Your task to perform on an android device: delete location history Image 0: 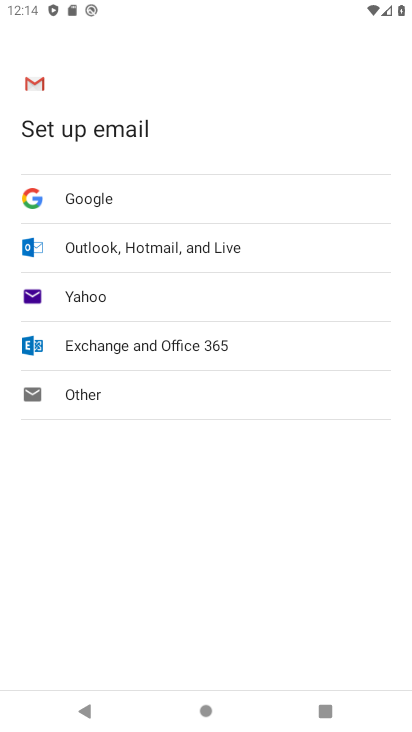
Step 0: press home button
Your task to perform on an android device: delete location history Image 1: 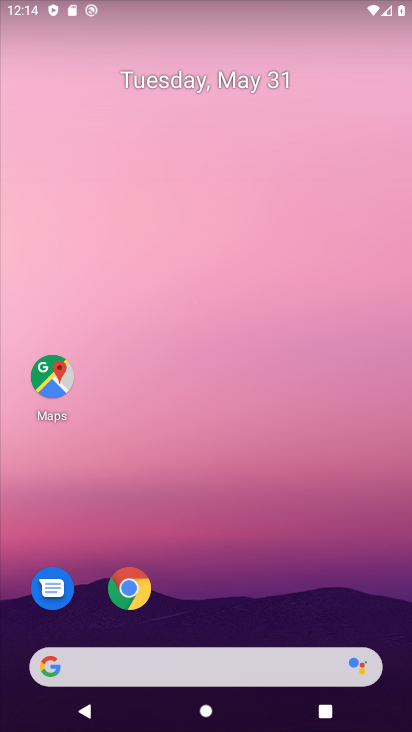
Step 1: drag from (153, 726) to (200, 71)
Your task to perform on an android device: delete location history Image 2: 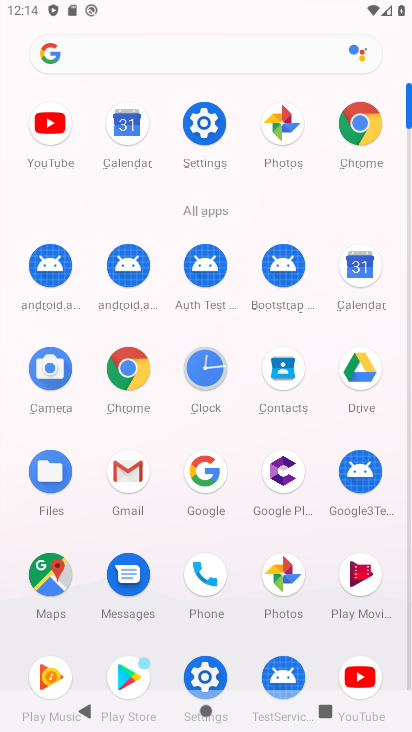
Step 2: click (209, 132)
Your task to perform on an android device: delete location history Image 3: 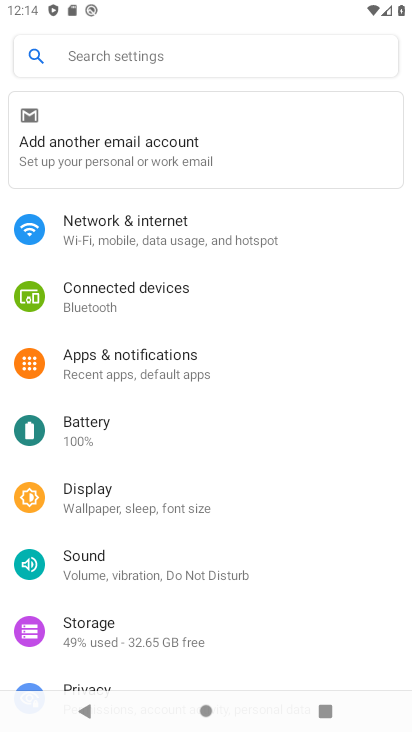
Step 3: drag from (147, 641) to (94, 187)
Your task to perform on an android device: delete location history Image 4: 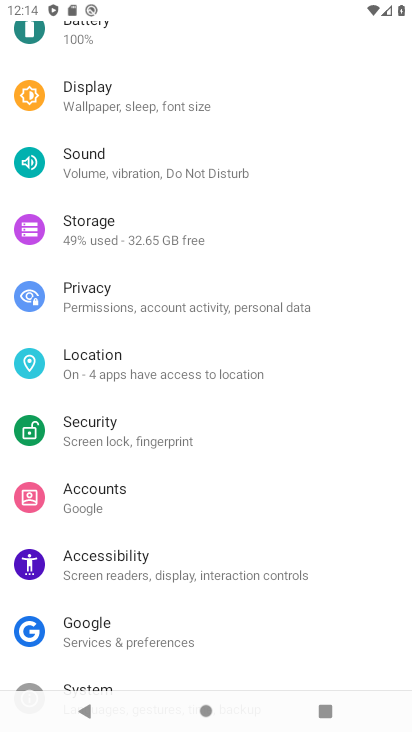
Step 4: click (167, 378)
Your task to perform on an android device: delete location history Image 5: 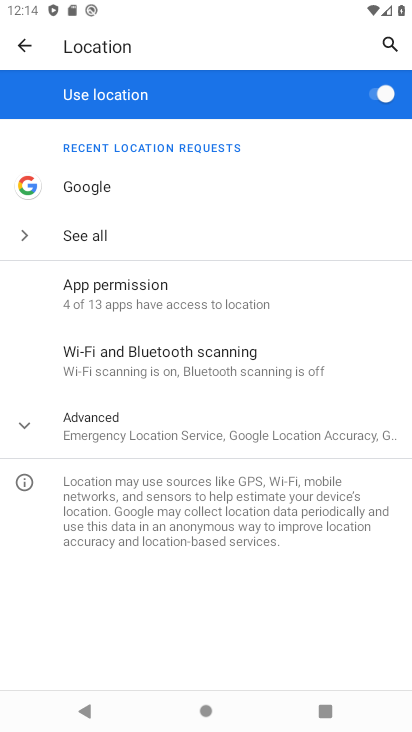
Step 5: click (97, 437)
Your task to perform on an android device: delete location history Image 6: 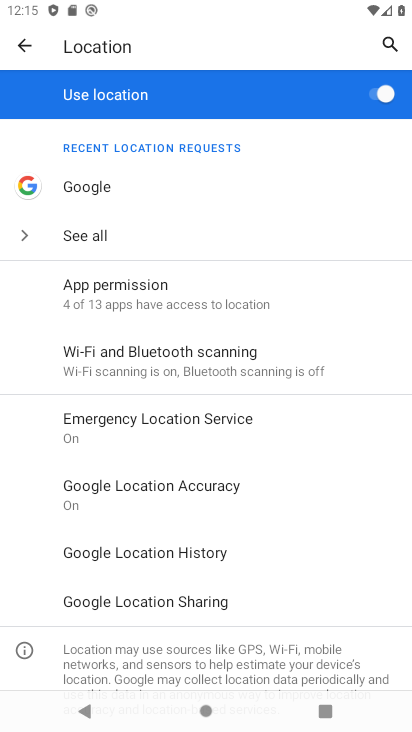
Step 6: click (192, 561)
Your task to perform on an android device: delete location history Image 7: 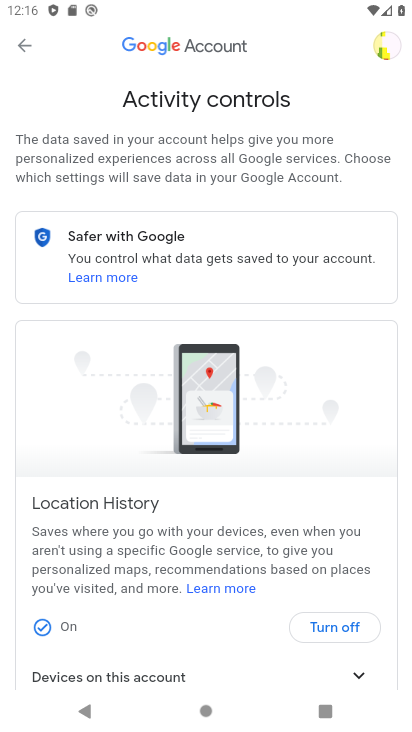
Step 7: drag from (179, 609) to (161, 227)
Your task to perform on an android device: delete location history Image 8: 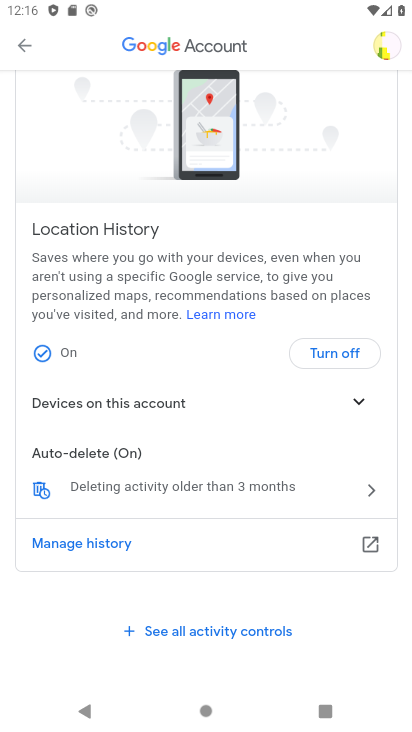
Step 8: click (114, 490)
Your task to perform on an android device: delete location history Image 9: 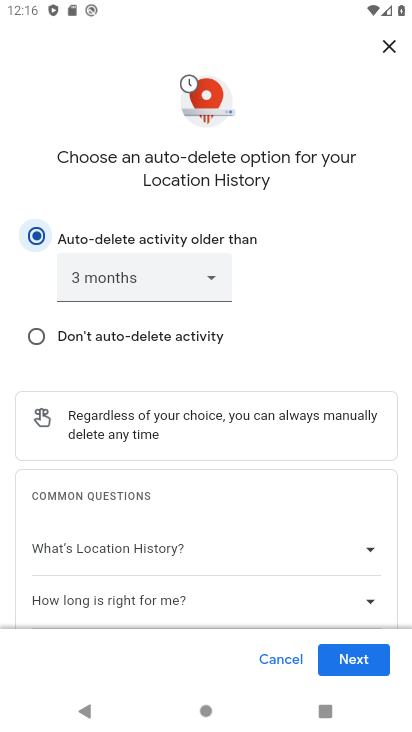
Step 9: click (352, 663)
Your task to perform on an android device: delete location history Image 10: 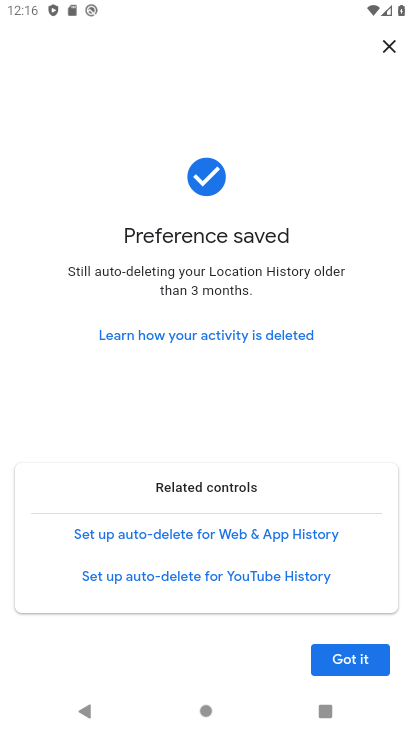
Step 10: click (350, 659)
Your task to perform on an android device: delete location history Image 11: 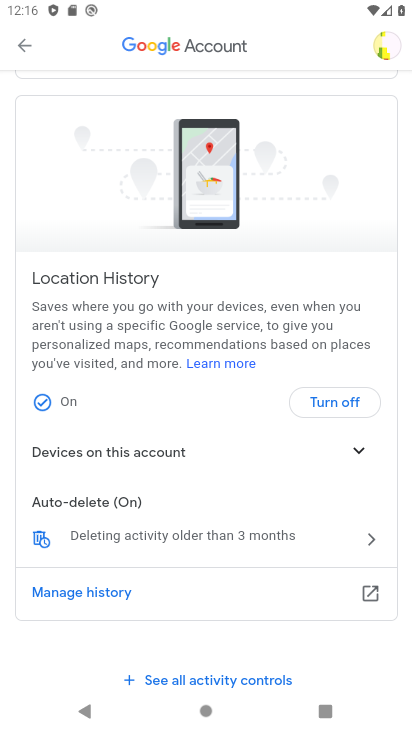
Step 11: task complete